Your task to perform on an android device: see tabs open on other devices in the chrome app Image 0: 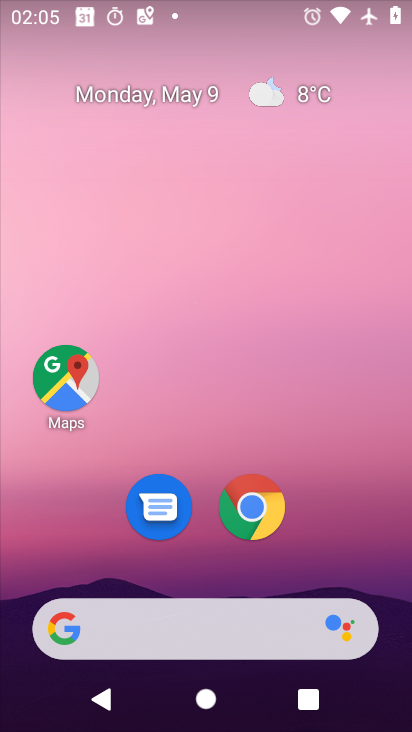
Step 0: click (251, 510)
Your task to perform on an android device: see tabs open on other devices in the chrome app Image 1: 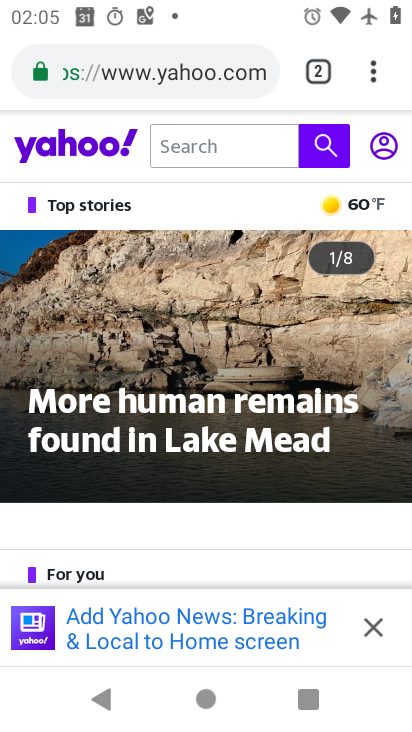
Step 1: click (373, 78)
Your task to perform on an android device: see tabs open on other devices in the chrome app Image 2: 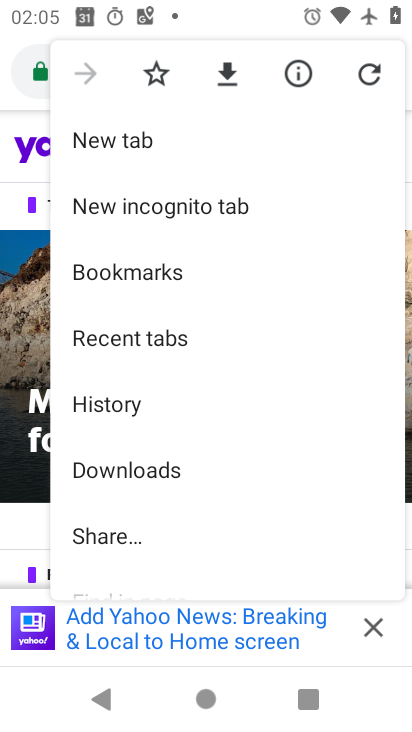
Step 2: click (140, 337)
Your task to perform on an android device: see tabs open on other devices in the chrome app Image 3: 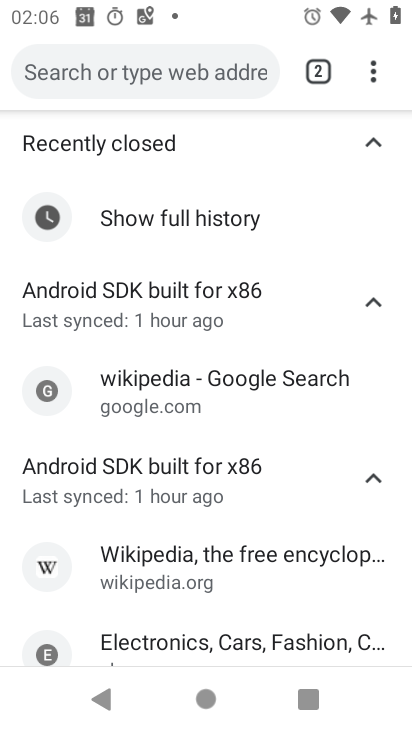
Step 3: task complete